Your task to perform on an android device: all mails in gmail Image 0: 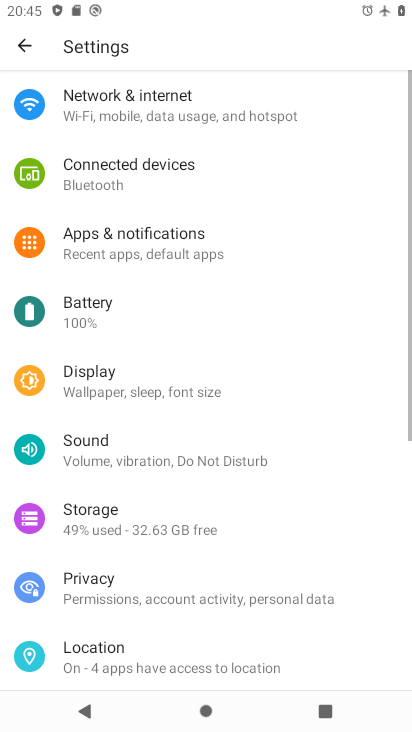
Step 0: press home button
Your task to perform on an android device: all mails in gmail Image 1: 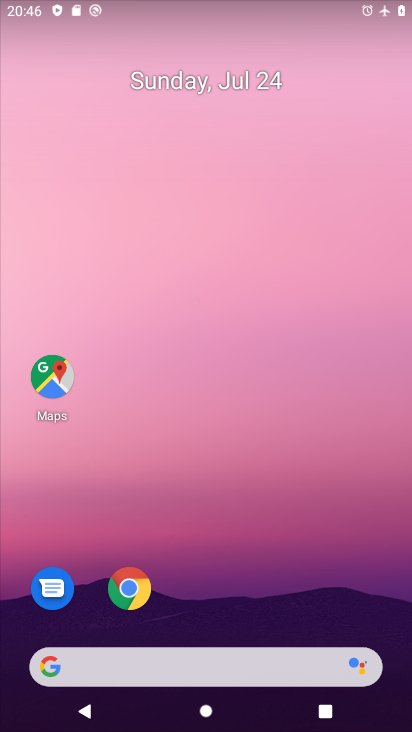
Step 1: drag from (288, 619) to (301, 9)
Your task to perform on an android device: all mails in gmail Image 2: 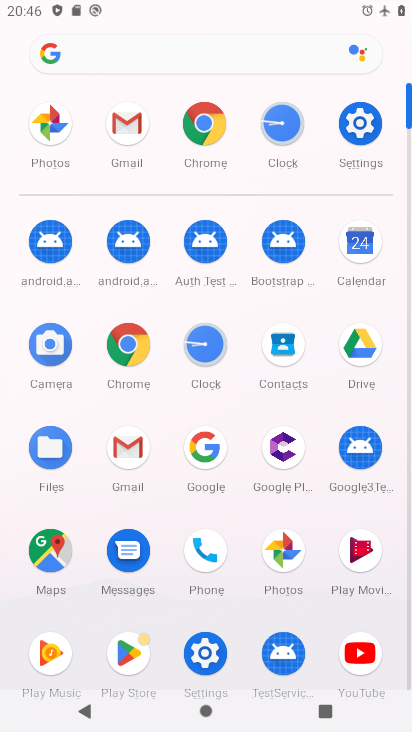
Step 2: click (118, 114)
Your task to perform on an android device: all mails in gmail Image 3: 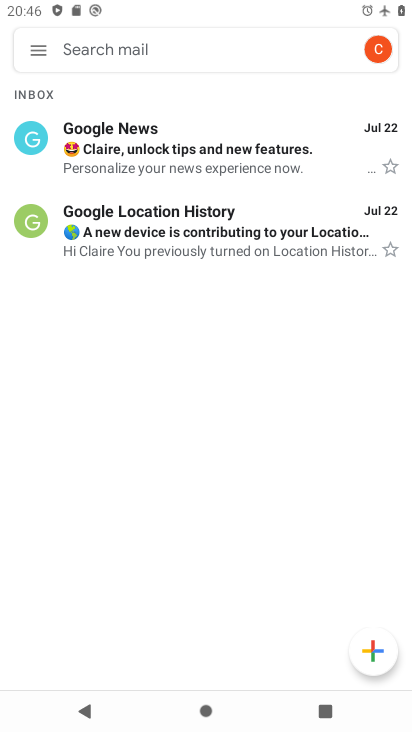
Step 3: click (35, 53)
Your task to perform on an android device: all mails in gmail Image 4: 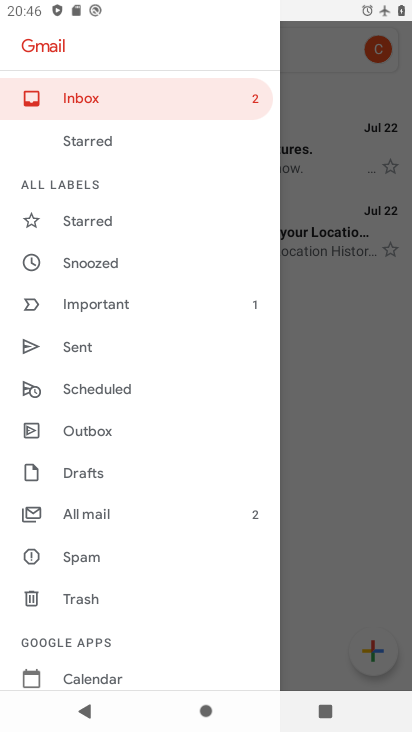
Step 4: click (93, 516)
Your task to perform on an android device: all mails in gmail Image 5: 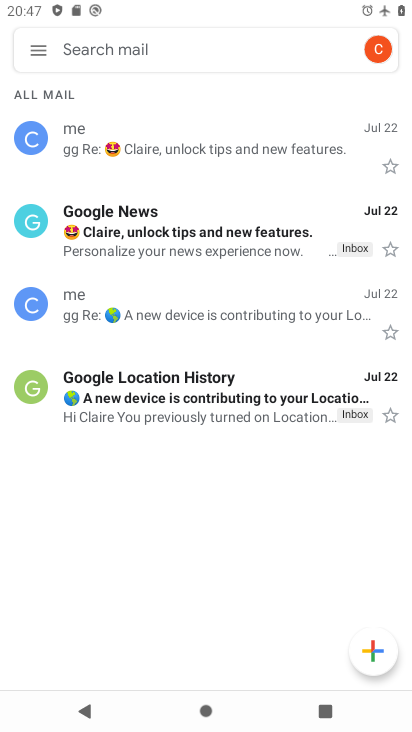
Step 5: task complete